Your task to perform on an android device: Open settings Image 0: 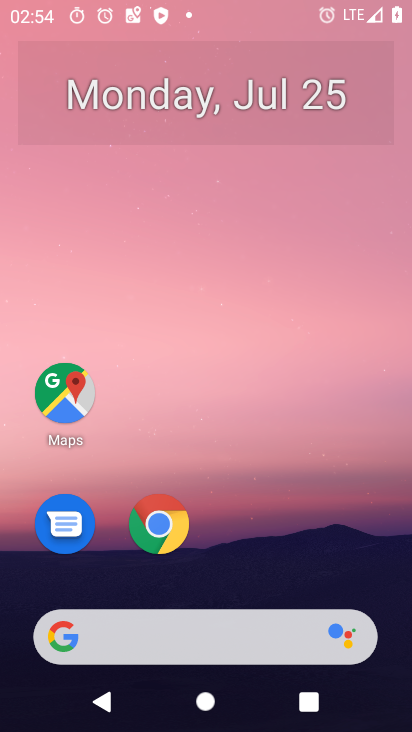
Step 0: press home button
Your task to perform on an android device: Open settings Image 1: 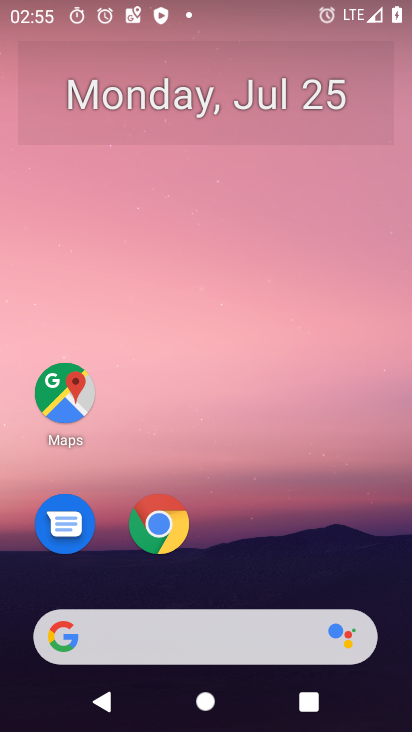
Step 1: drag from (243, 590) to (232, 185)
Your task to perform on an android device: Open settings Image 2: 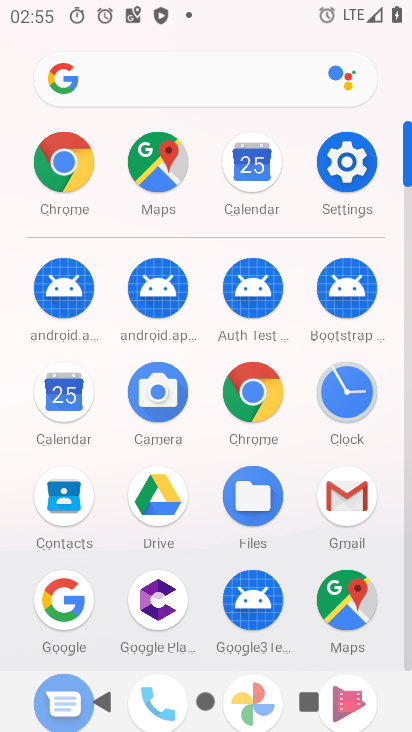
Step 2: click (350, 165)
Your task to perform on an android device: Open settings Image 3: 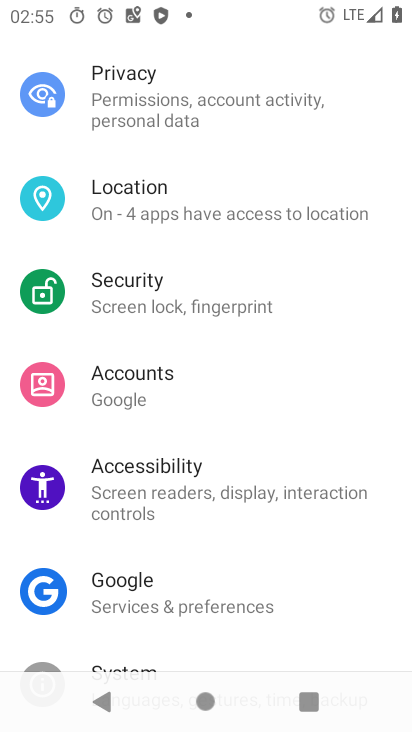
Step 3: task complete